Your task to perform on an android device: install app "Pluto TV - Live TV and Movies" Image 0: 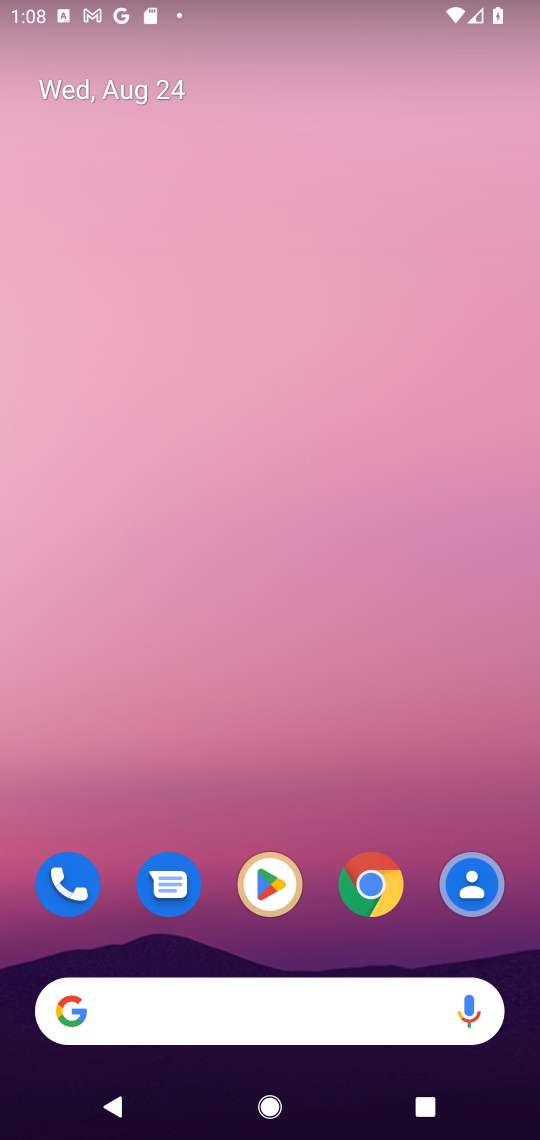
Step 0: drag from (185, 1010) to (172, 75)
Your task to perform on an android device: install app "Pluto TV - Live TV and Movies" Image 1: 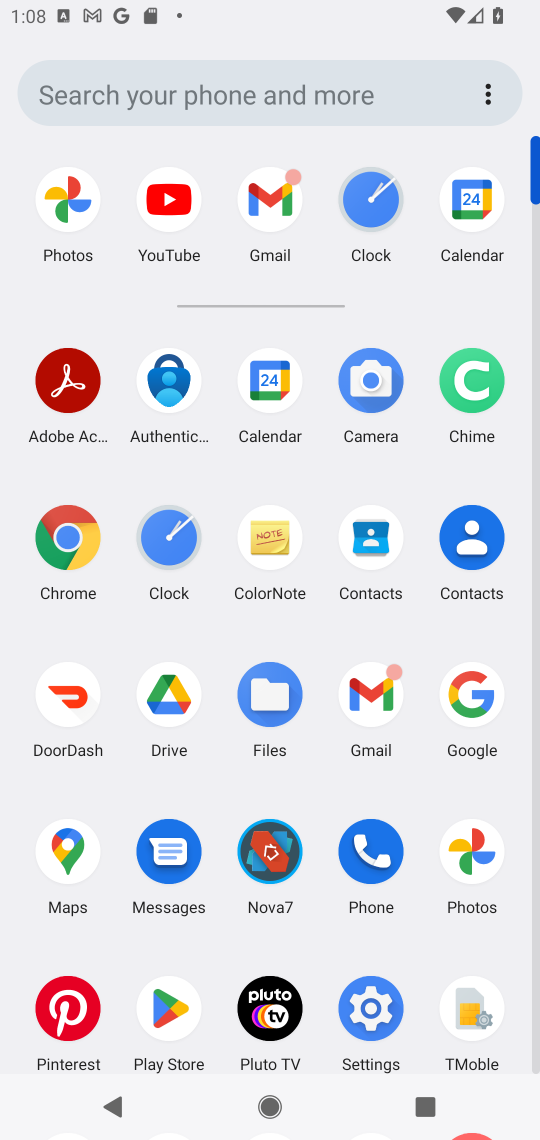
Step 1: click (177, 1009)
Your task to perform on an android device: install app "Pluto TV - Live TV and Movies" Image 2: 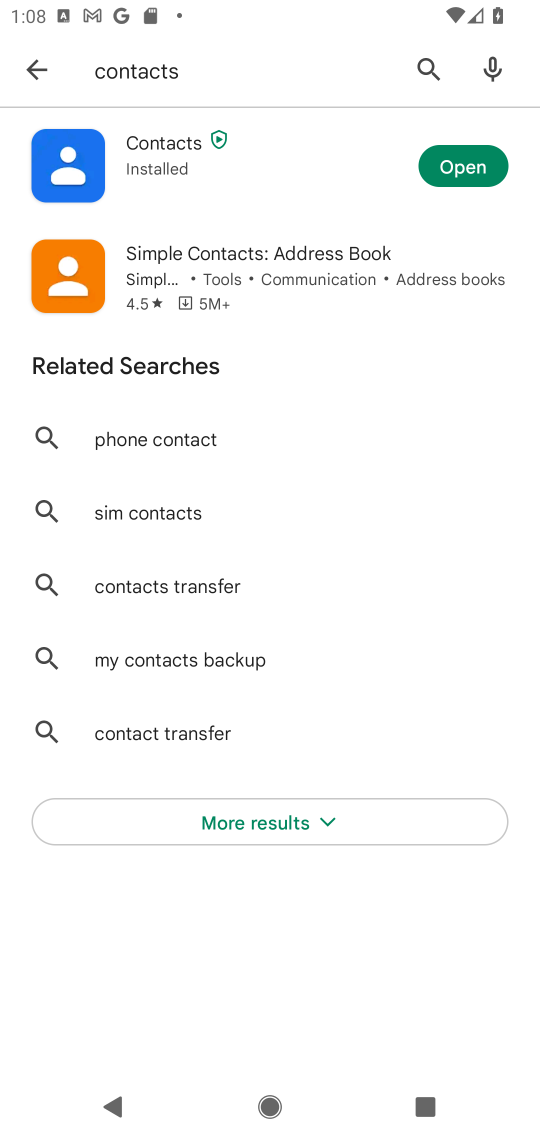
Step 2: press back button
Your task to perform on an android device: install app "Pluto TV - Live TV and Movies" Image 3: 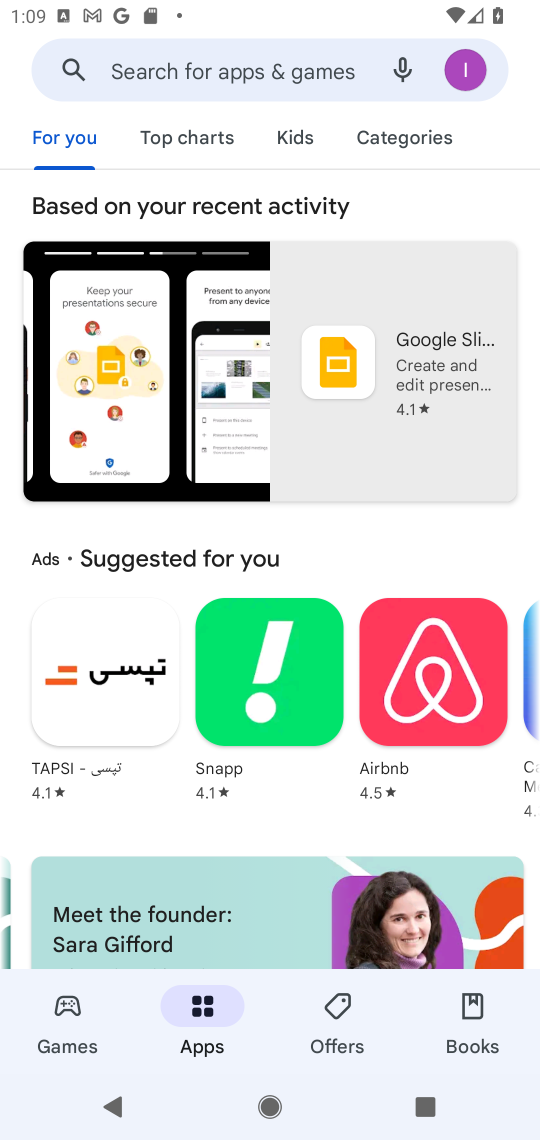
Step 3: click (286, 82)
Your task to perform on an android device: install app "Pluto TV - Live TV and Movies" Image 4: 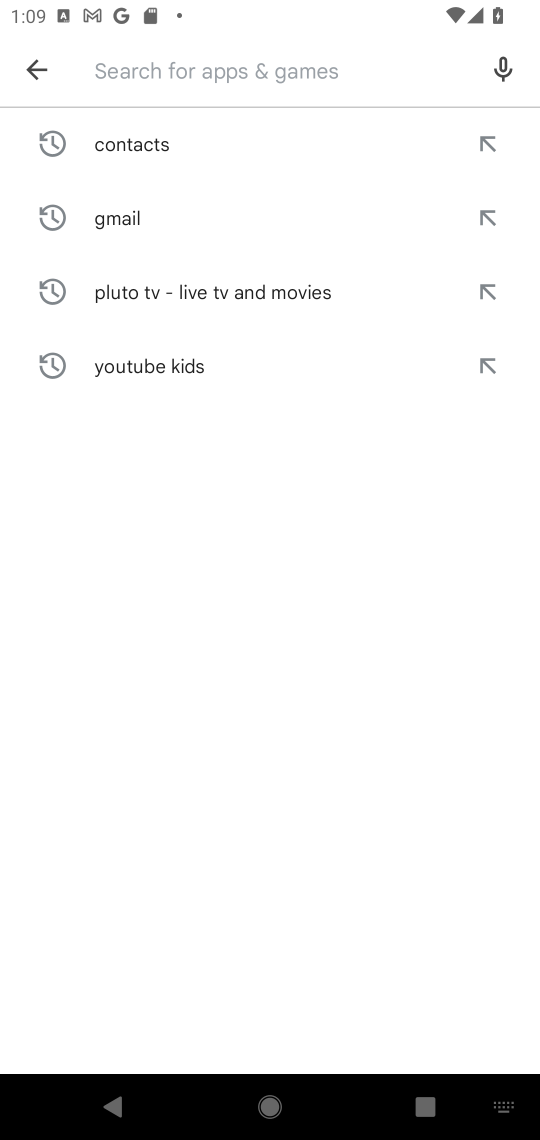
Step 4: type "Pluto TV - Live TV and Movies"
Your task to perform on an android device: install app "Pluto TV - Live TV and Movies" Image 5: 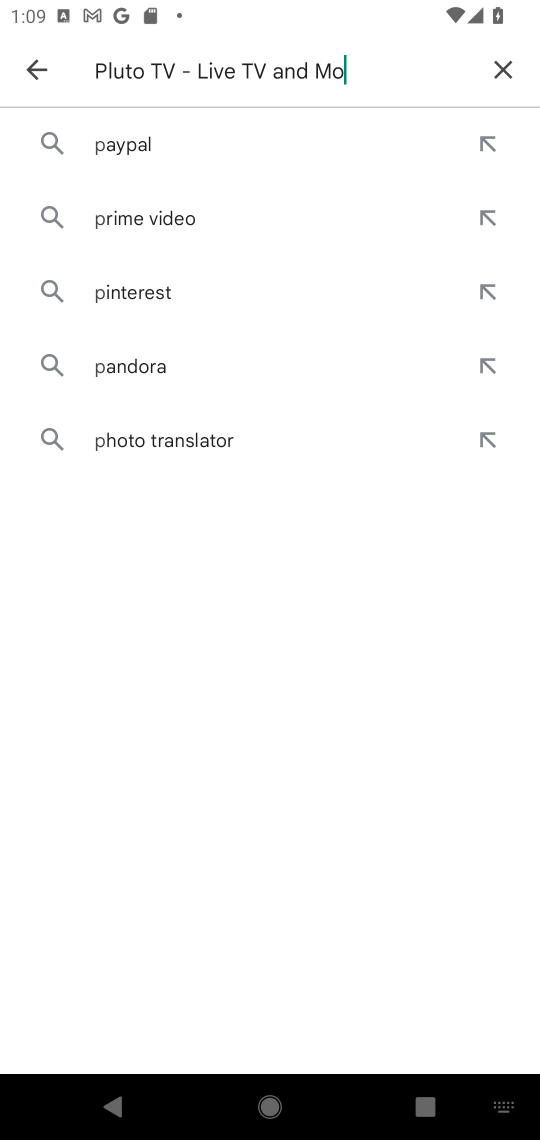
Step 5: type ""
Your task to perform on an android device: install app "Pluto TV - Live TV and Movies" Image 6: 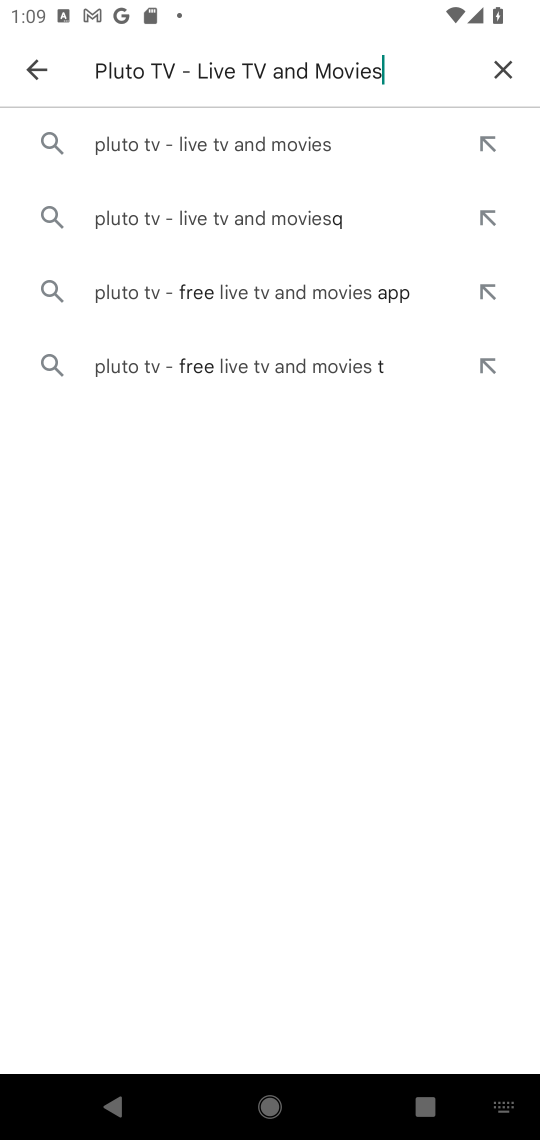
Step 6: click (136, 135)
Your task to perform on an android device: install app "Pluto TV - Live TV and Movies" Image 7: 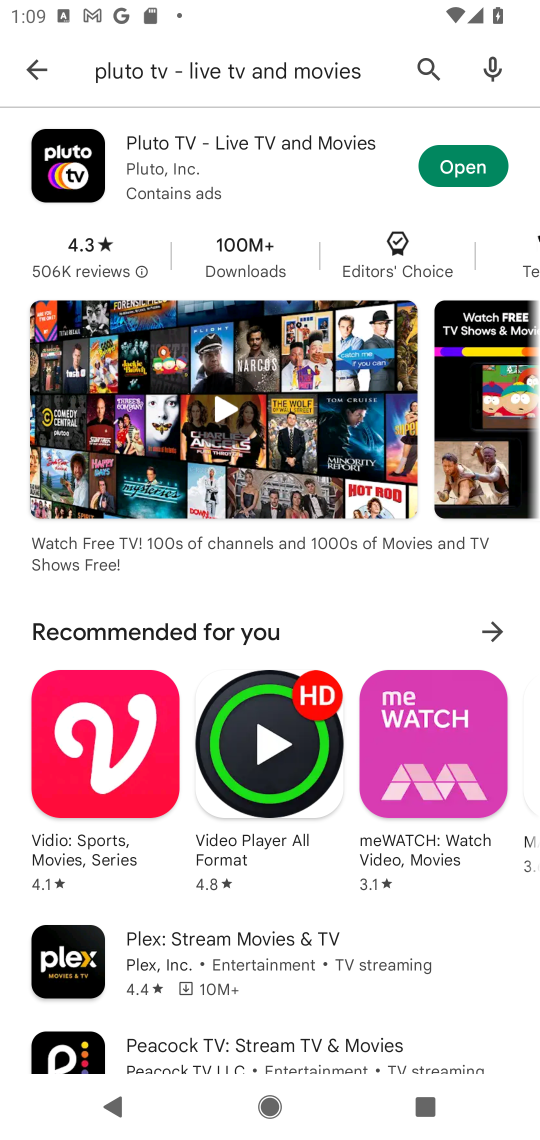
Step 7: click (76, 164)
Your task to perform on an android device: install app "Pluto TV - Live TV and Movies" Image 8: 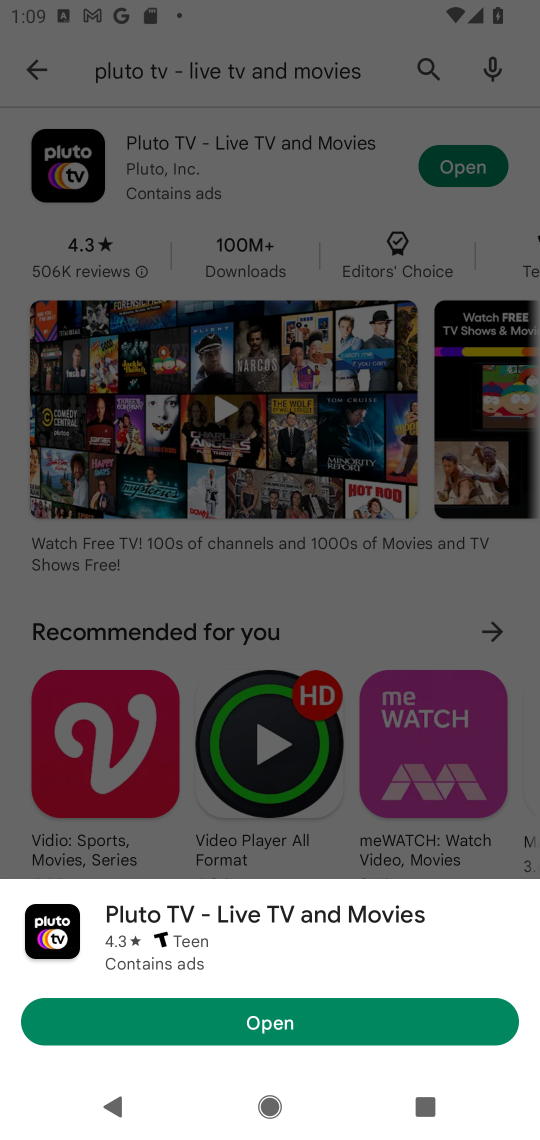
Step 8: click (202, 150)
Your task to perform on an android device: install app "Pluto TV - Live TV and Movies" Image 9: 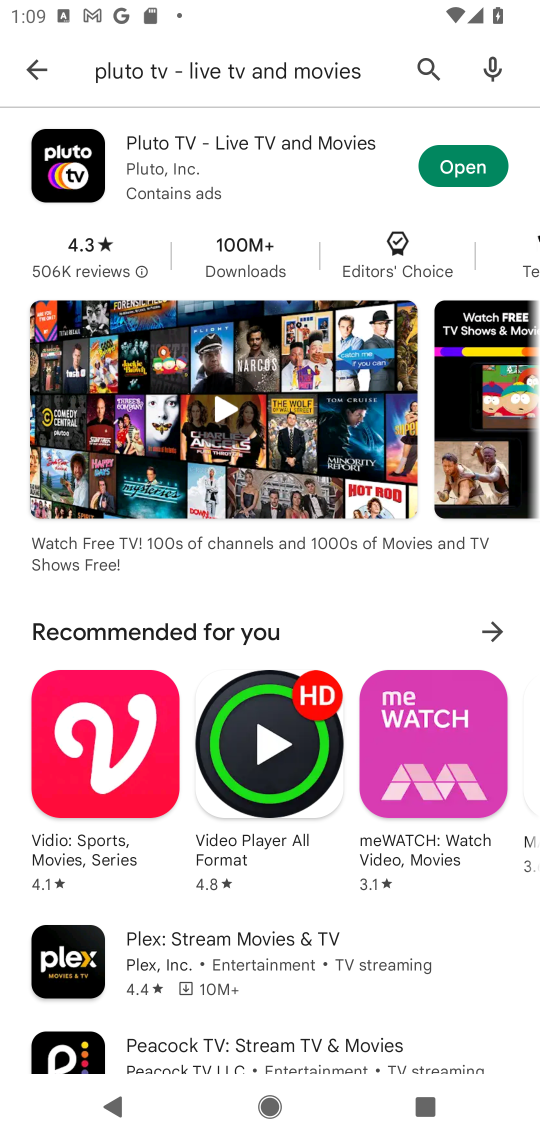
Step 9: click (202, 149)
Your task to perform on an android device: install app "Pluto TV - Live TV and Movies" Image 10: 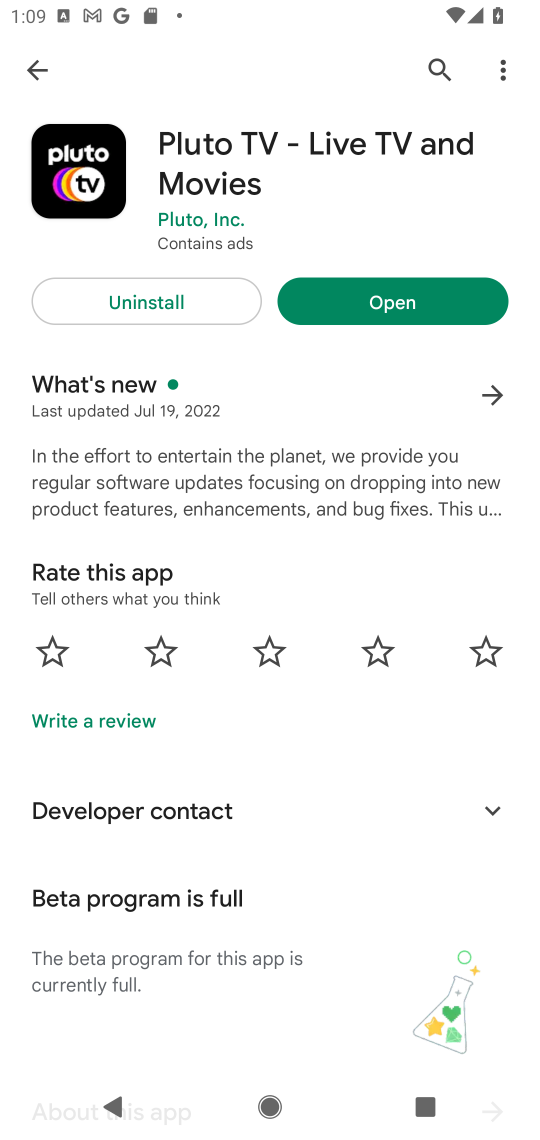
Step 10: task complete